Your task to perform on an android device: Open Reddit.com Image 0: 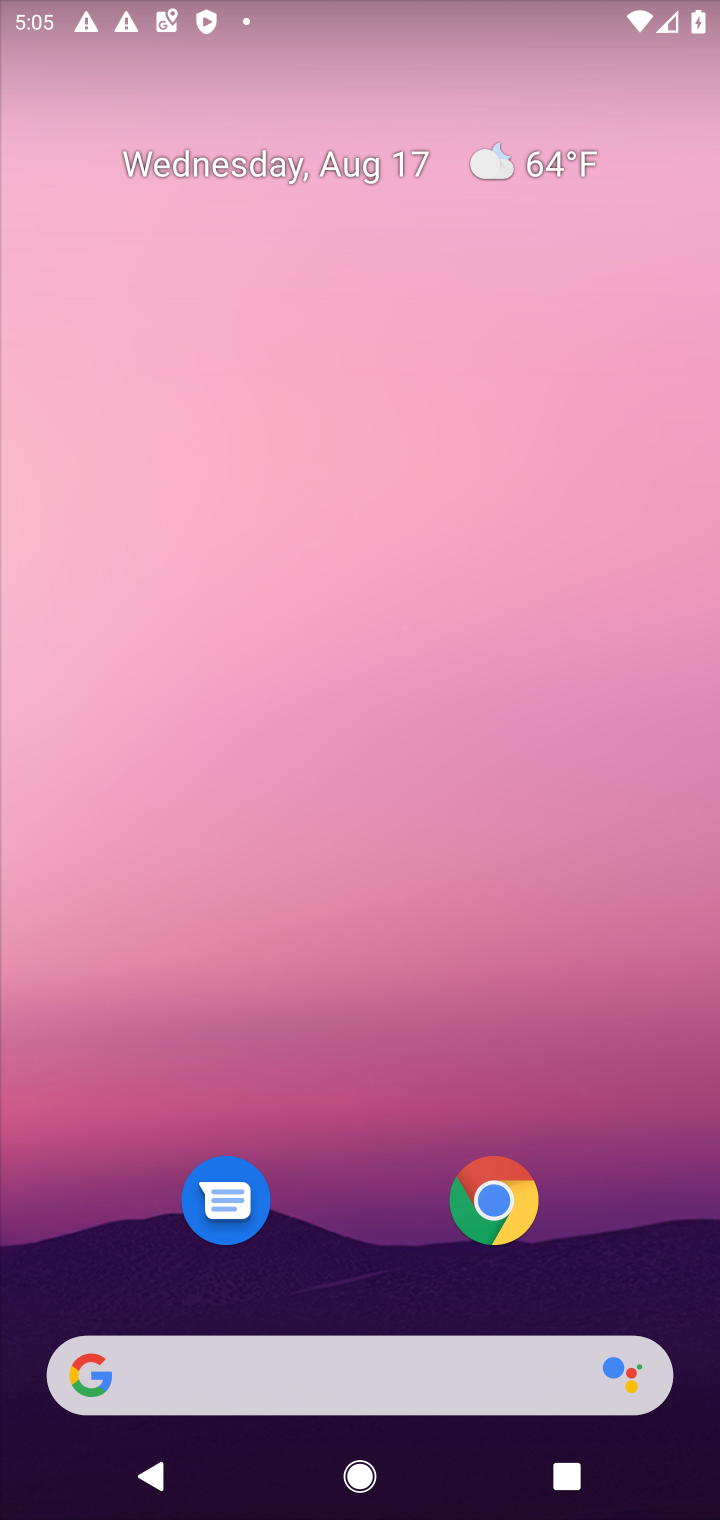
Step 0: drag from (390, 1260) to (379, 190)
Your task to perform on an android device: Open Reddit.com Image 1: 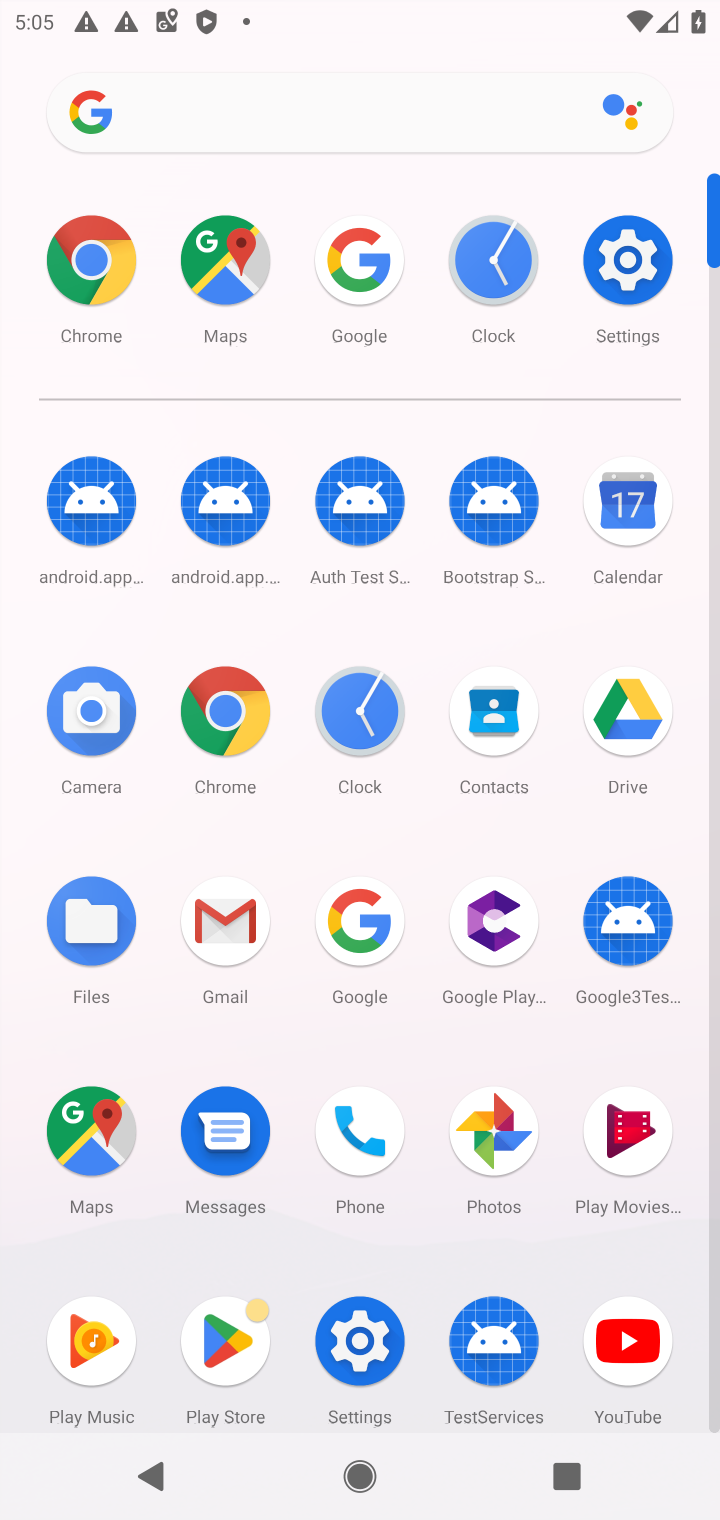
Step 1: click (208, 708)
Your task to perform on an android device: Open Reddit.com Image 2: 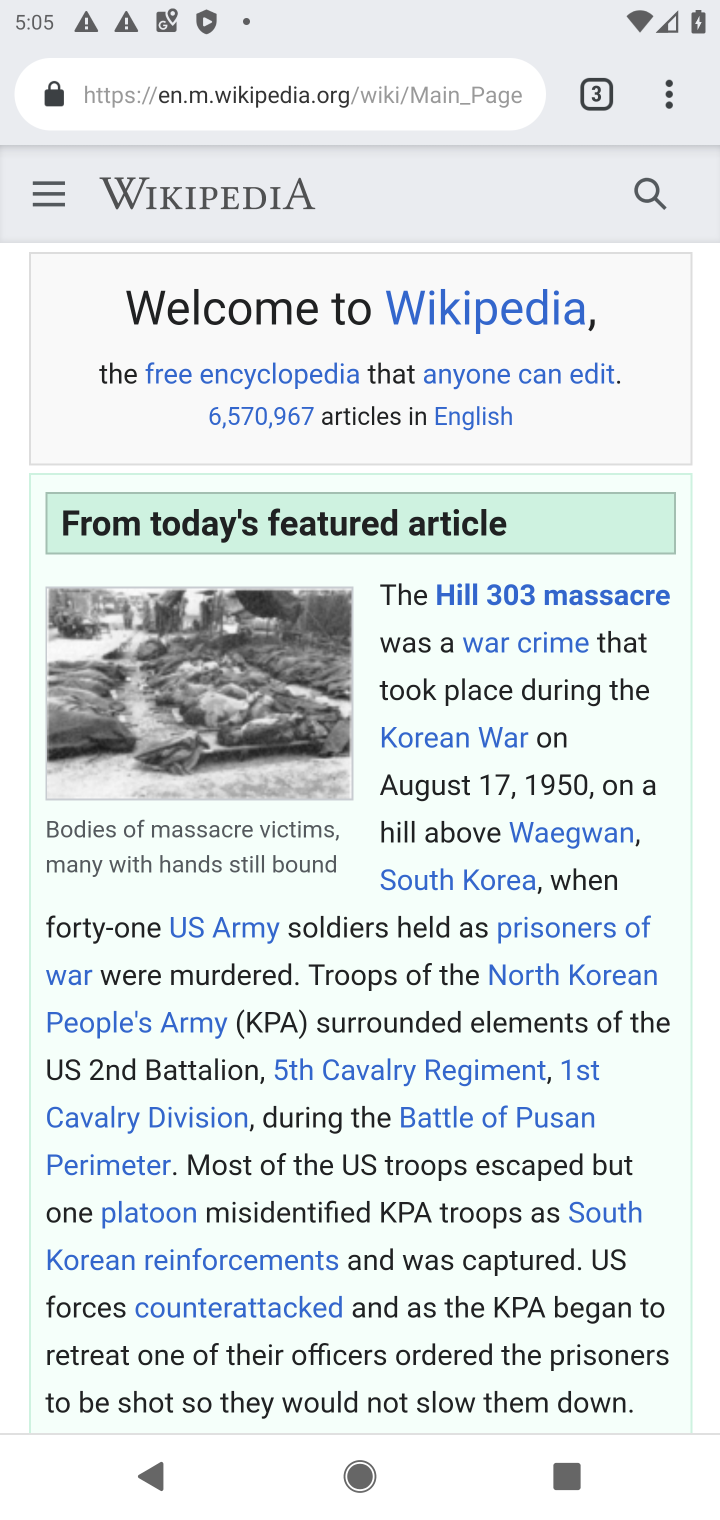
Step 2: drag from (671, 106) to (305, 198)
Your task to perform on an android device: Open Reddit.com Image 3: 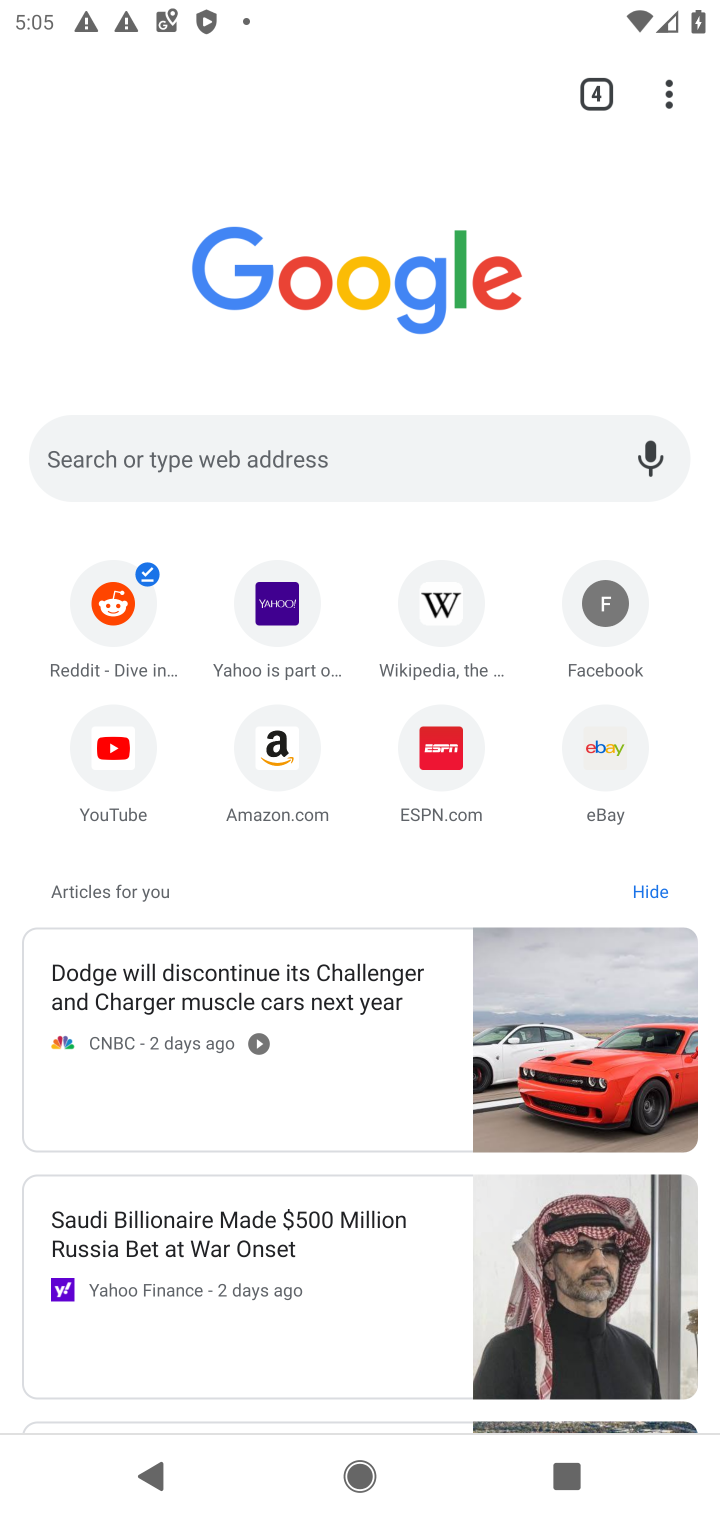
Step 3: click (308, 454)
Your task to perform on an android device: Open Reddit.com Image 4: 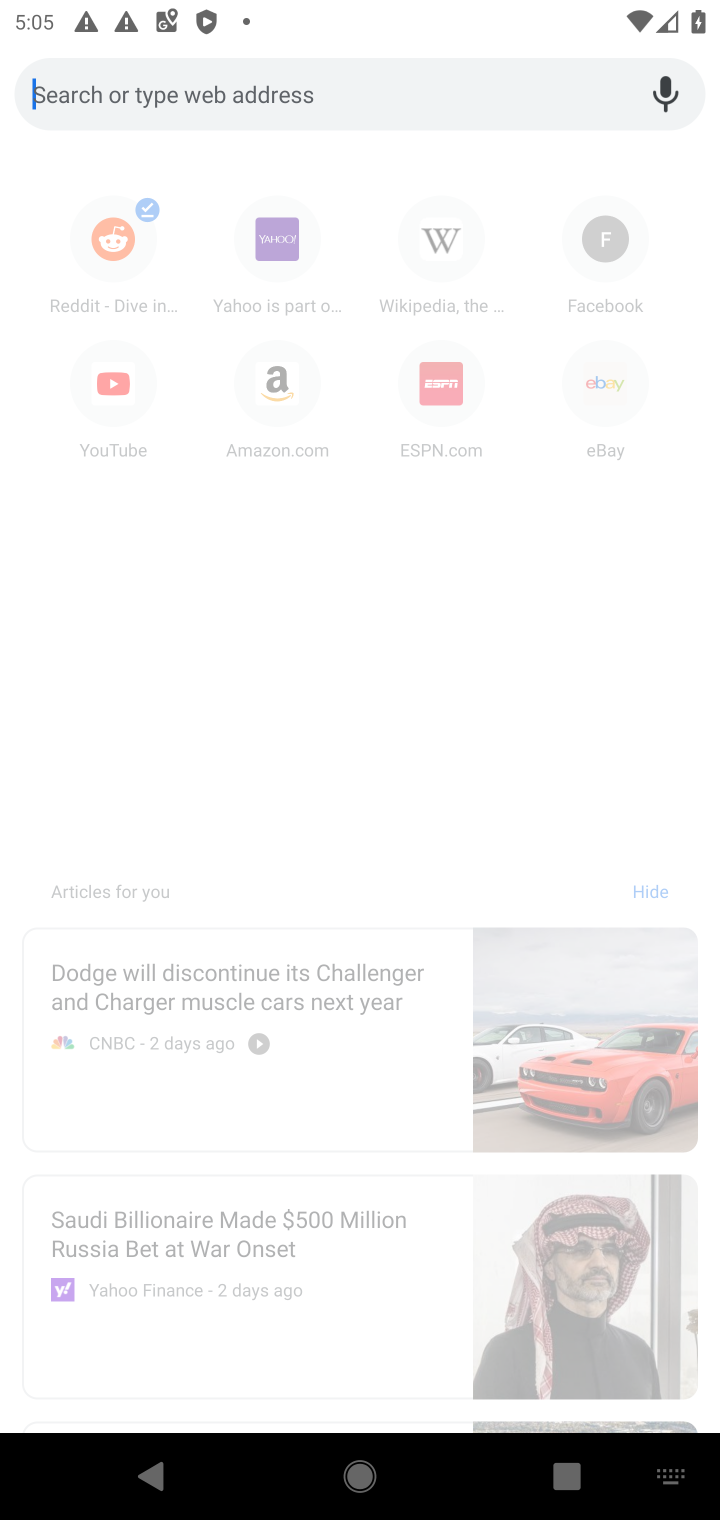
Step 4: type "Reddit.com"
Your task to perform on an android device: Open Reddit.com Image 5: 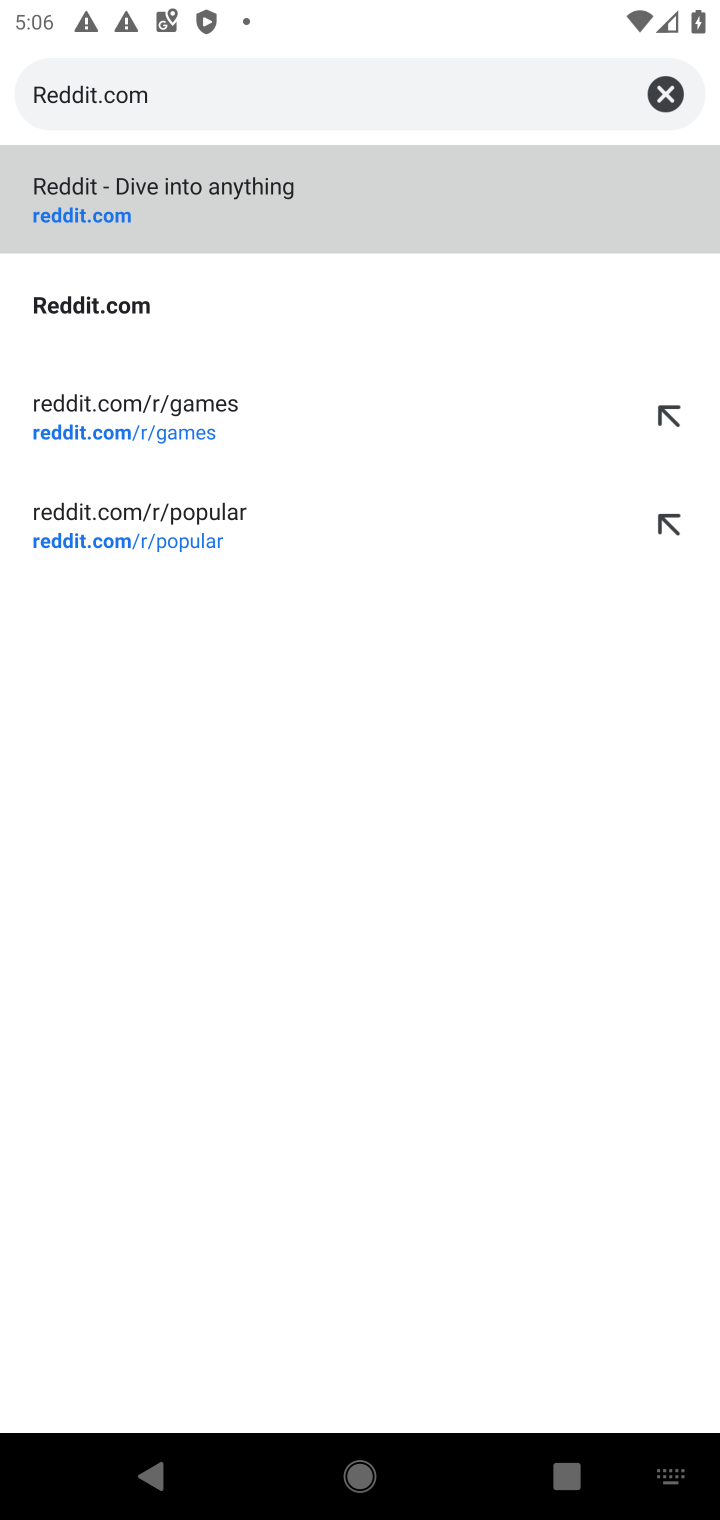
Step 5: click (240, 181)
Your task to perform on an android device: Open Reddit.com Image 6: 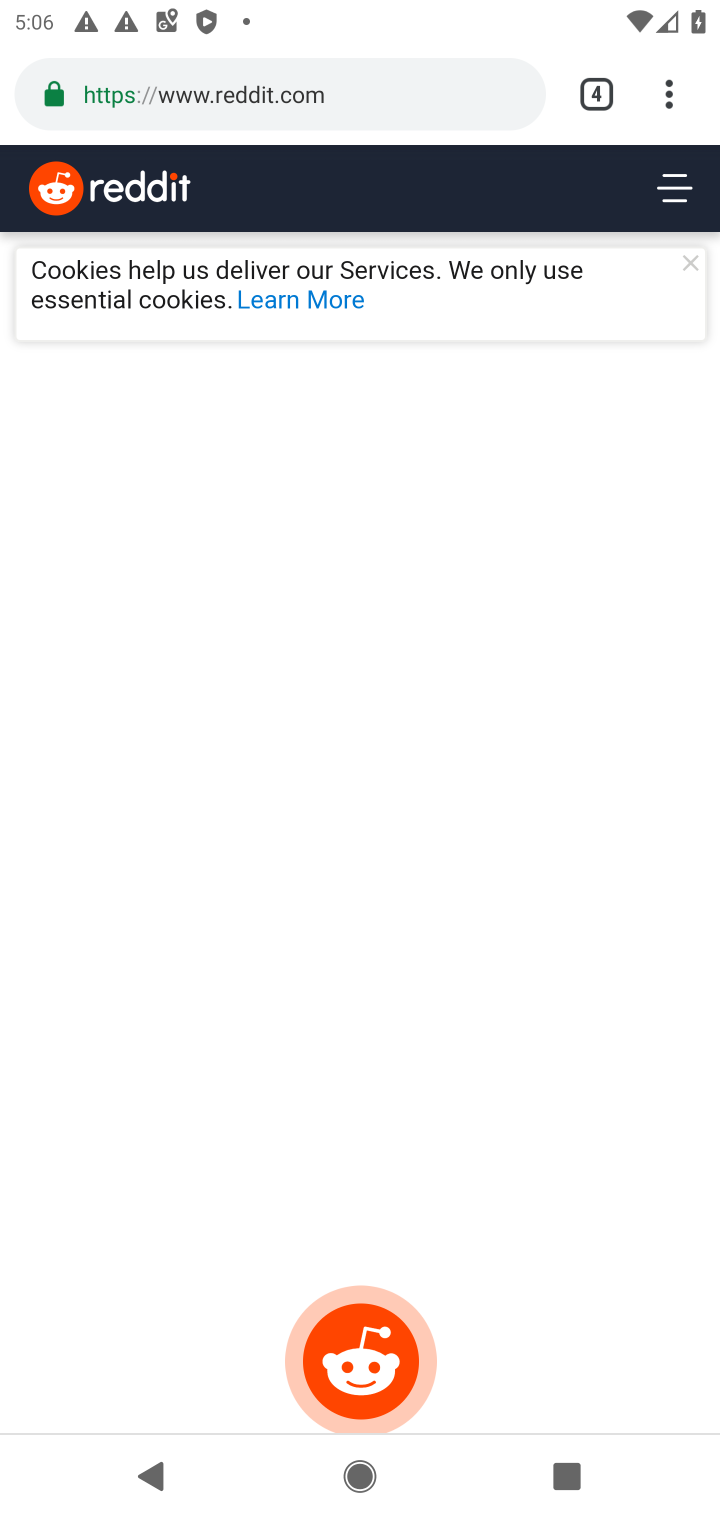
Step 6: task complete